Your task to perform on an android device: turn off airplane mode Image 0: 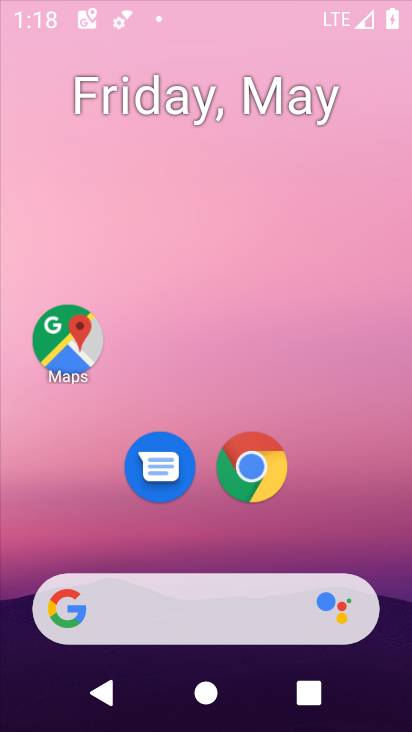
Step 0: click (260, 466)
Your task to perform on an android device: turn off airplane mode Image 1: 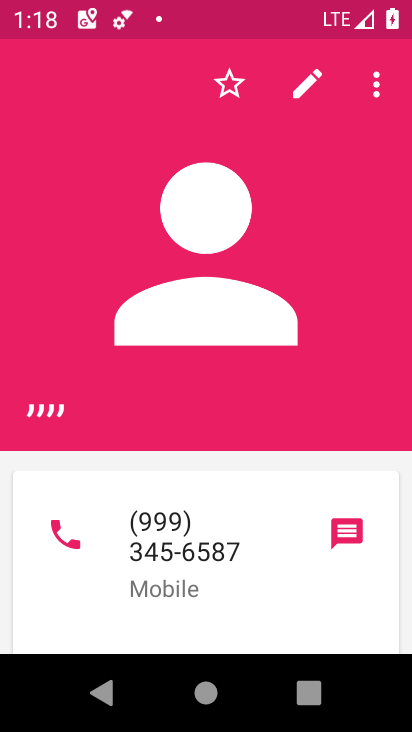
Step 1: press home button
Your task to perform on an android device: turn off airplane mode Image 2: 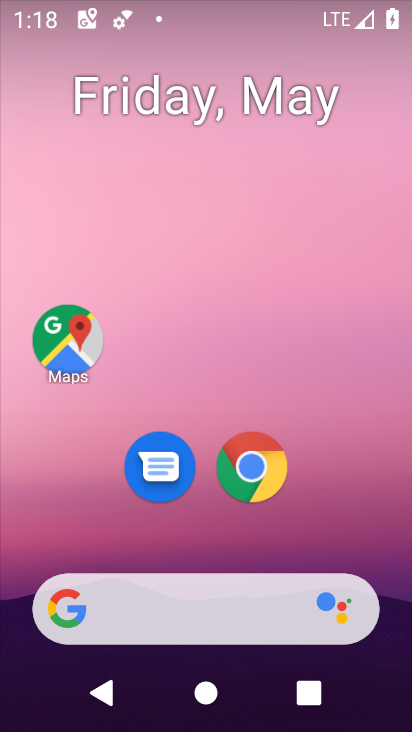
Step 2: drag from (328, 514) to (368, 68)
Your task to perform on an android device: turn off airplane mode Image 3: 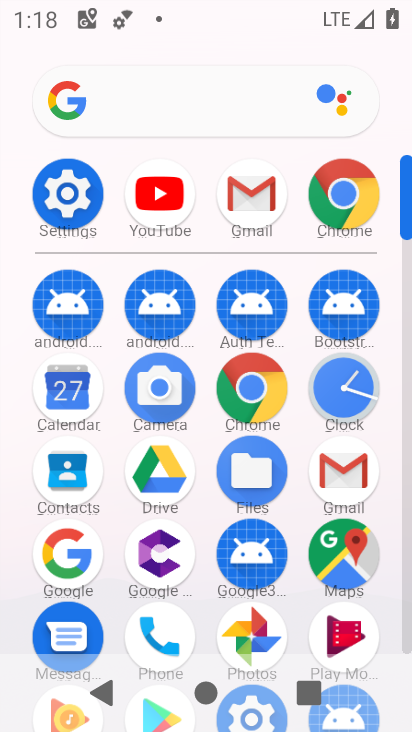
Step 3: click (350, 183)
Your task to perform on an android device: turn off airplane mode Image 4: 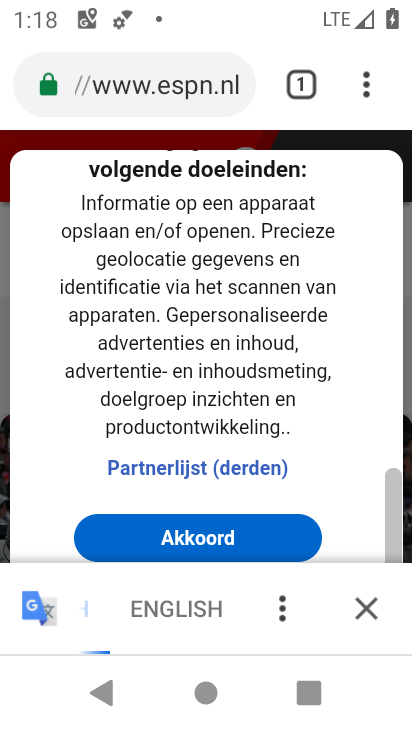
Step 4: click (187, 91)
Your task to perform on an android device: turn off airplane mode Image 5: 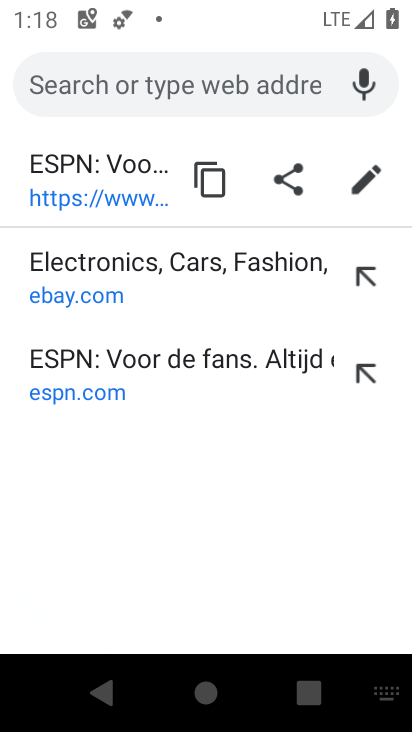
Step 5: press home button
Your task to perform on an android device: turn off airplane mode Image 6: 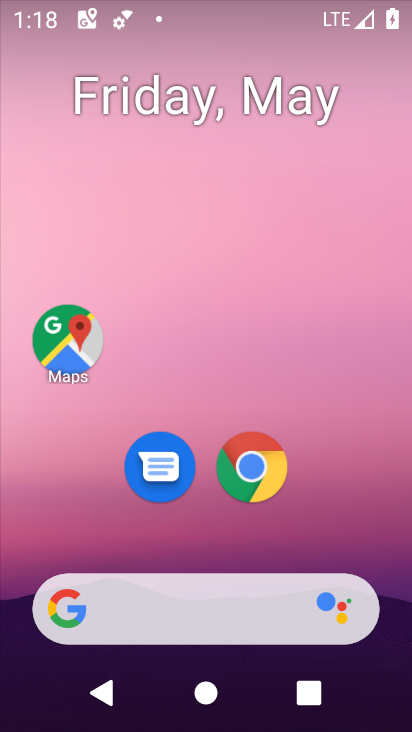
Step 6: drag from (321, 418) to (351, 16)
Your task to perform on an android device: turn off airplane mode Image 7: 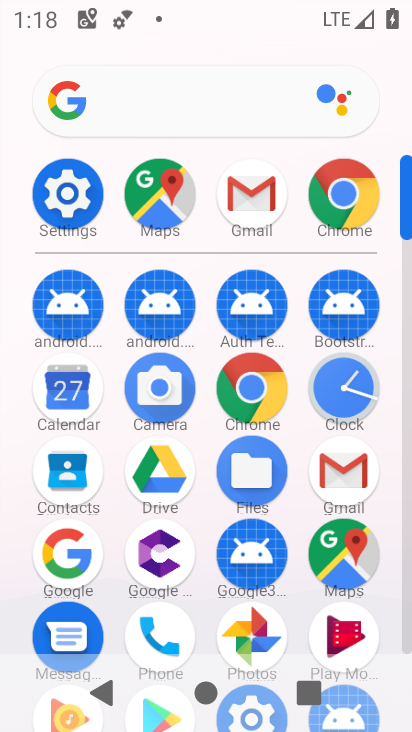
Step 7: click (64, 191)
Your task to perform on an android device: turn off airplane mode Image 8: 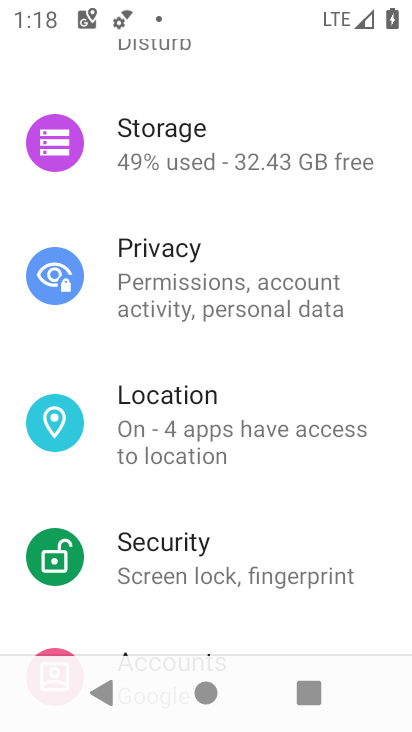
Step 8: drag from (211, 187) to (197, 634)
Your task to perform on an android device: turn off airplane mode Image 9: 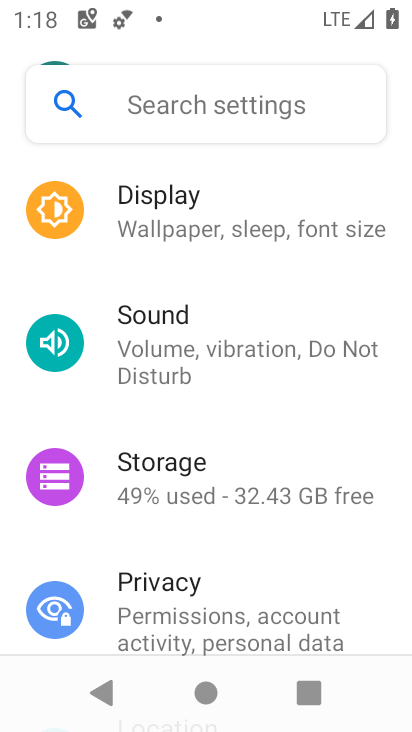
Step 9: drag from (246, 183) to (249, 615)
Your task to perform on an android device: turn off airplane mode Image 10: 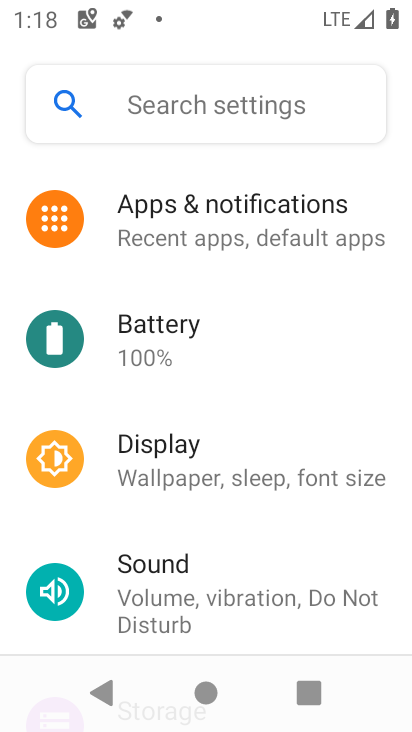
Step 10: drag from (277, 249) to (284, 668)
Your task to perform on an android device: turn off airplane mode Image 11: 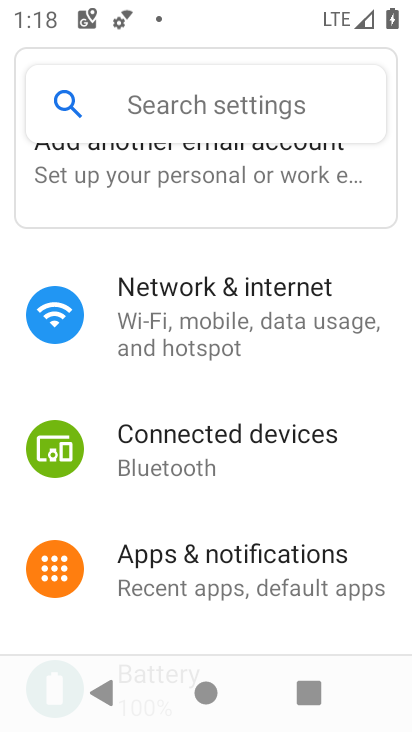
Step 11: click (220, 317)
Your task to perform on an android device: turn off airplane mode Image 12: 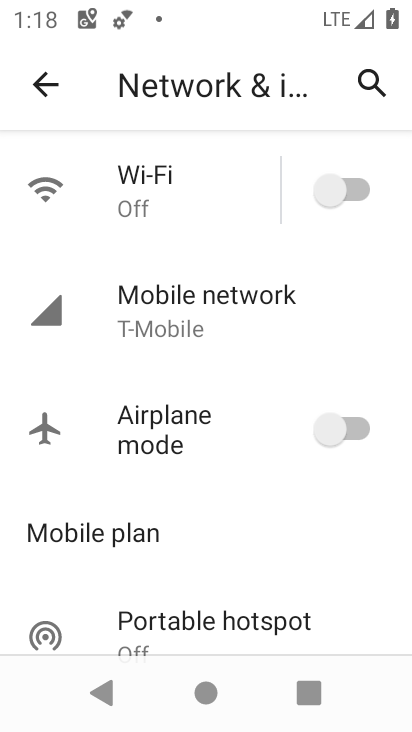
Step 12: task complete